Your task to perform on an android device: see tabs open on other devices in the chrome app Image 0: 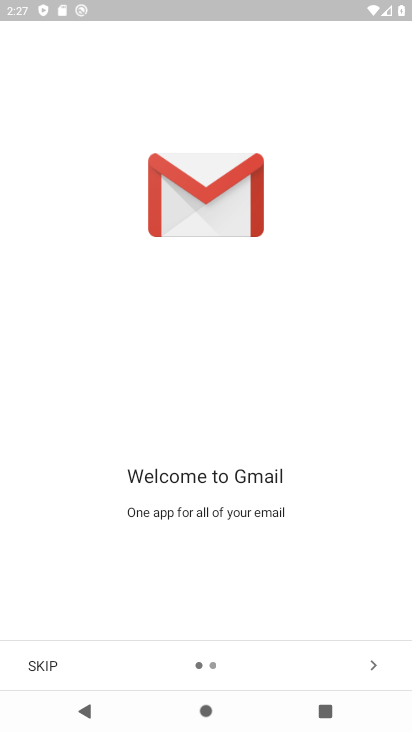
Step 0: press home button
Your task to perform on an android device: see tabs open on other devices in the chrome app Image 1: 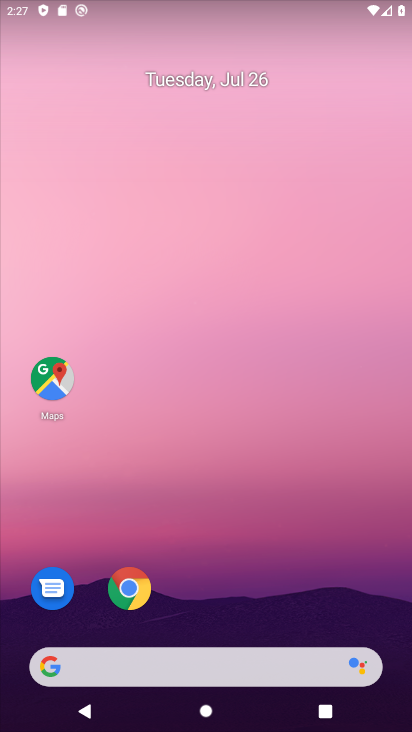
Step 1: click (141, 587)
Your task to perform on an android device: see tabs open on other devices in the chrome app Image 2: 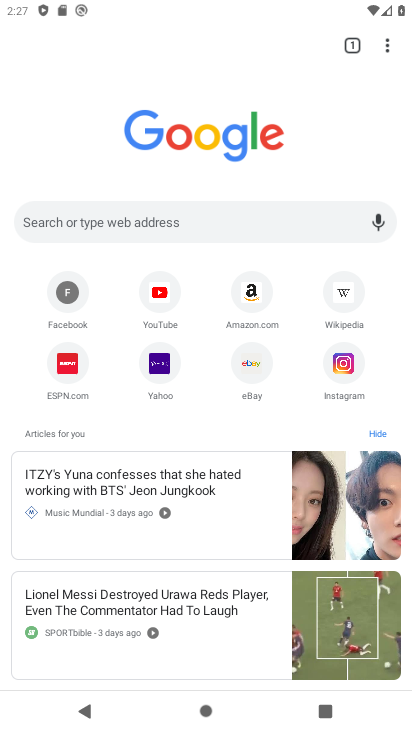
Step 2: click (391, 37)
Your task to perform on an android device: see tabs open on other devices in the chrome app Image 3: 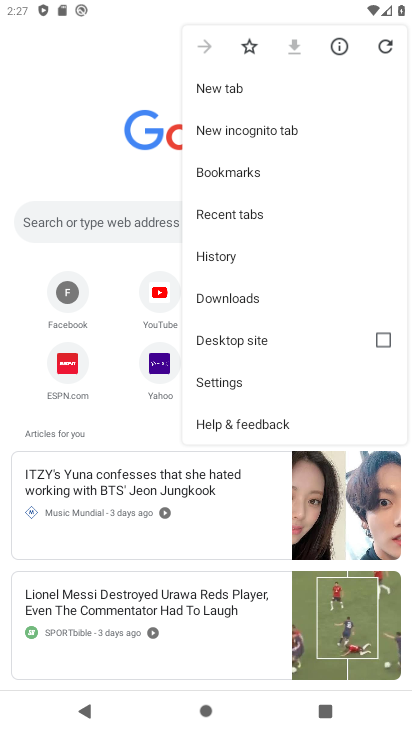
Step 3: click (253, 218)
Your task to perform on an android device: see tabs open on other devices in the chrome app Image 4: 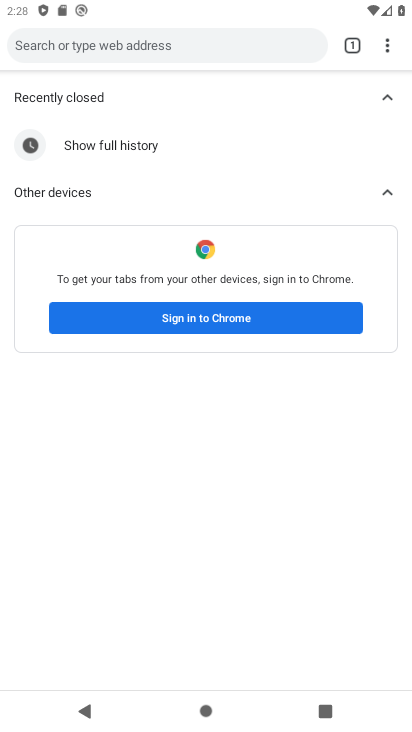
Step 4: task complete